Your task to perform on an android device: see sites visited before in the chrome app Image 0: 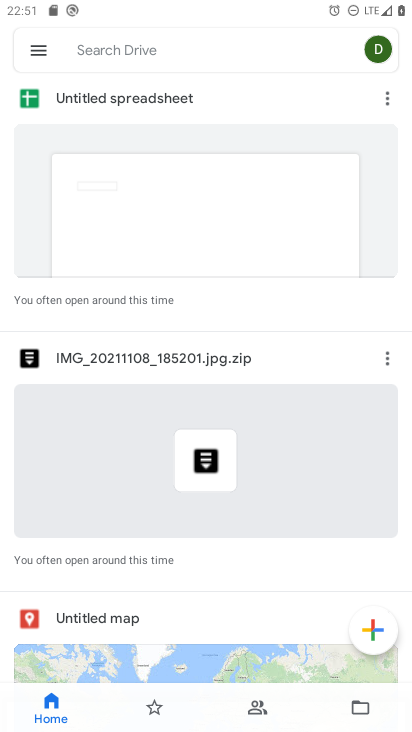
Step 0: press home button
Your task to perform on an android device: see sites visited before in the chrome app Image 1: 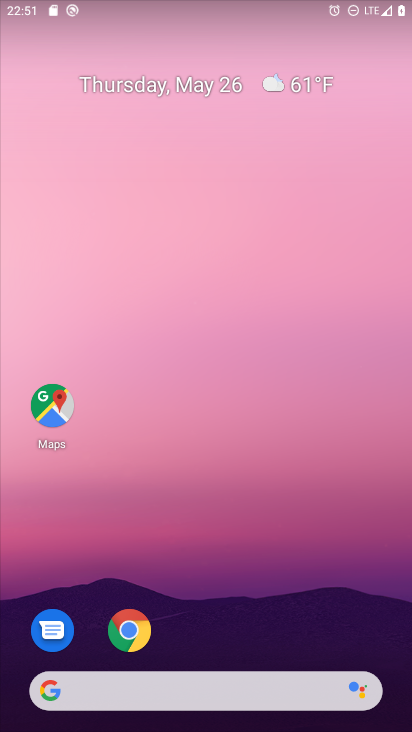
Step 1: click (153, 637)
Your task to perform on an android device: see sites visited before in the chrome app Image 2: 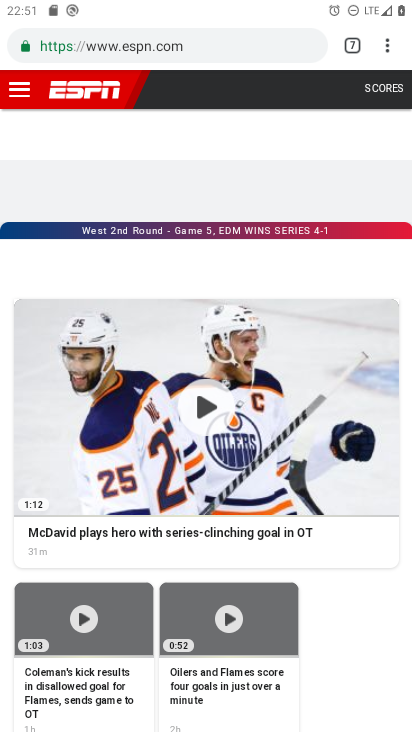
Step 2: click (339, 41)
Your task to perform on an android device: see sites visited before in the chrome app Image 3: 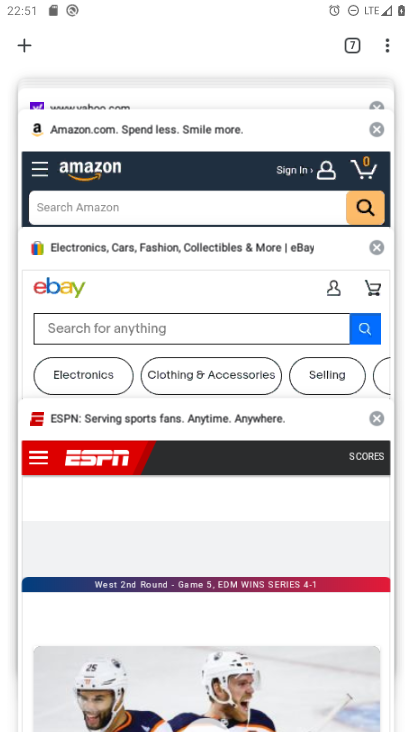
Step 3: task complete